Your task to perform on an android device: clear all cookies in the chrome app Image 0: 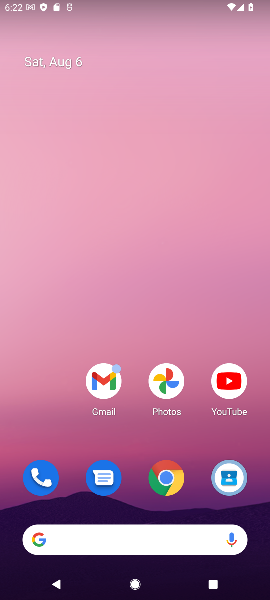
Step 0: click (171, 484)
Your task to perform on an android device: clear all cookies in the chrome app Image 1: 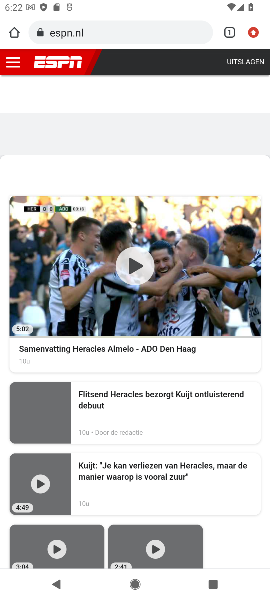
Step 1: click (254, 38)
Your task to perform on an android device: clear all cookies in the chrome app Image 2: 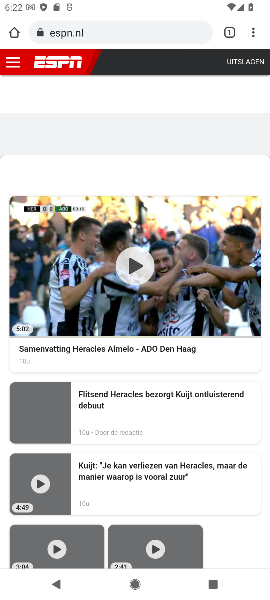
Step 2: click (254, 33)
Your task to perform on an android device: clear all cookies in the chrome app Image 3: 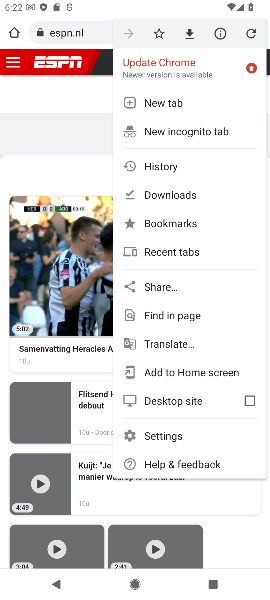
Step 3: click (169, 171)
Your task to perform on an android device: clear all cookies in the chrome app Image 4: 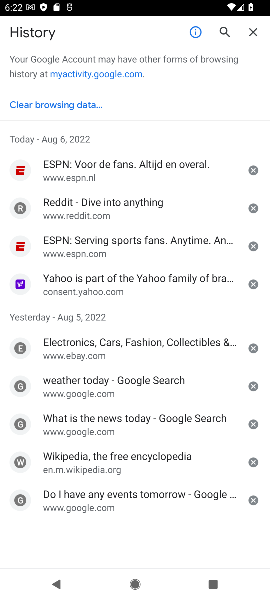
Step 4: click (72, 108)
Your task to perform on an android device: clear all cookies in the chrome app Image 5: 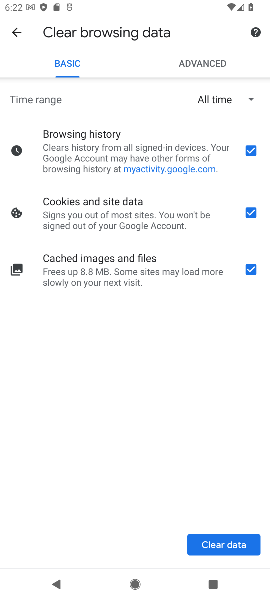
Step 5: click (228, 146)
Your task to perform on an android device: clear all cookies in the chrome app Image 6: 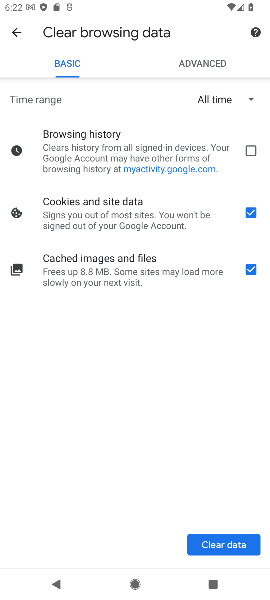
Step 6: click (248, 266)
Your task to perform on an android device: clear all cookies in the chrome app Image 7: 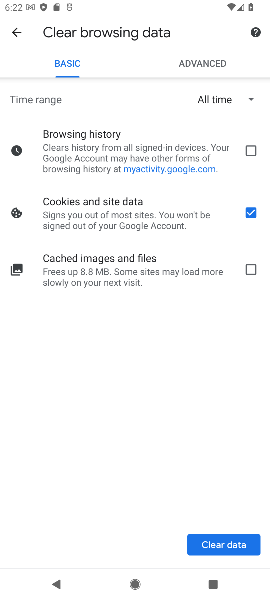
Step 7: click (237, 544)
Your task to perform on an android device: clear all cookies in the chrome app Image 8: 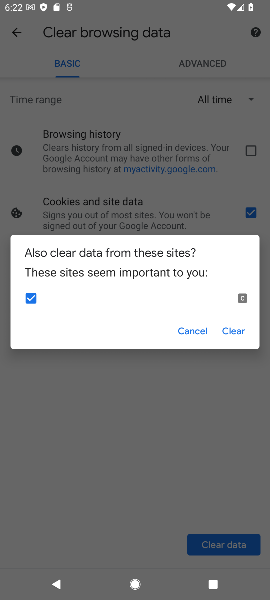
Step 8: click (235, 329)
Your task to perform on an android device: clear all cookies in the chrome app Image 9: 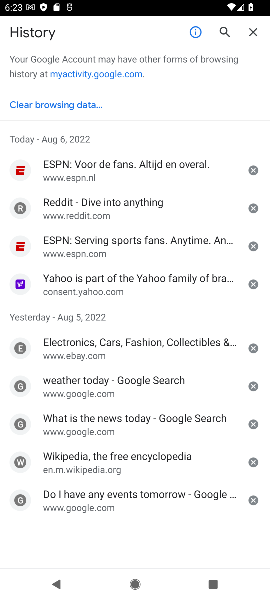
Step 9: task complete